Your task to perform on an android device: Go to Maps Image 0: 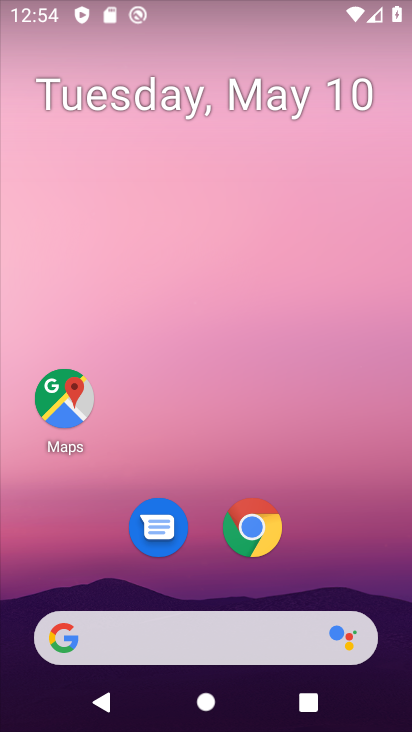
Step 0: click (52, 399)
Your task to perform on an android device: Go to Maps Image 1: 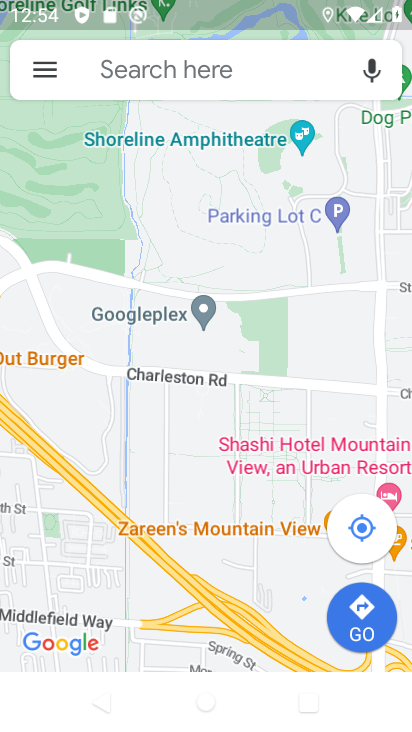
Step 1: task complete